Your task to perform on an android device: turn off airplane mode Image 0: 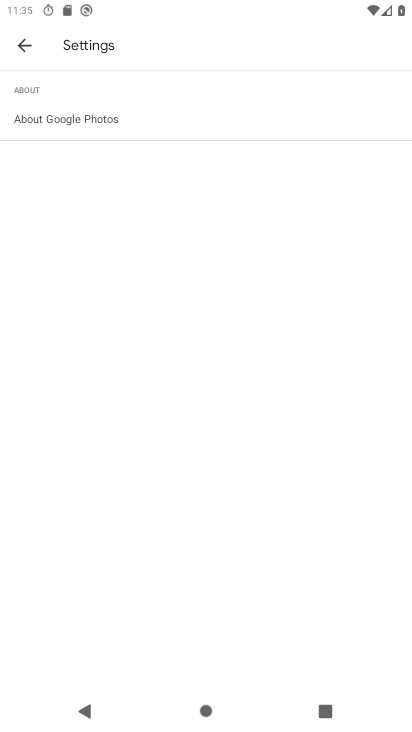
Step 0: press home button
Your task to perform on an android device: turn off airplane mode Image 1: 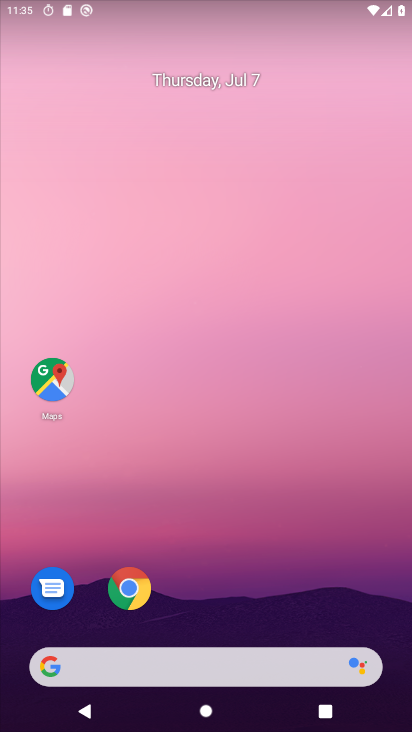
Step 1: drag from (219, 651) to (346, 60)
Your task to perform on an android device: turn off airplane mode Image 2: 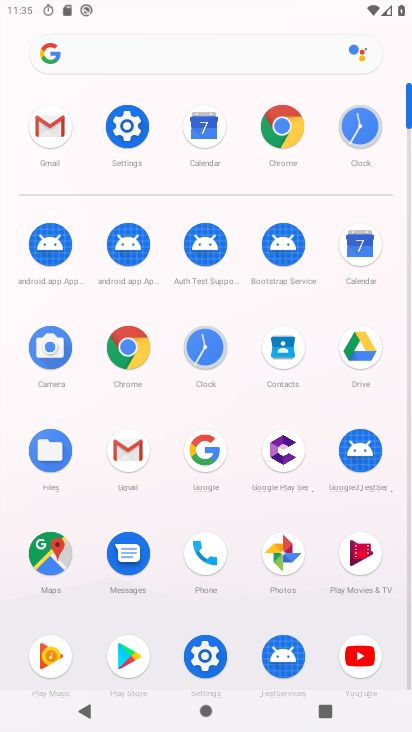
Step 2: click (130, 137)
Your task to perform on an android device: turn off airplane mode Image 3: 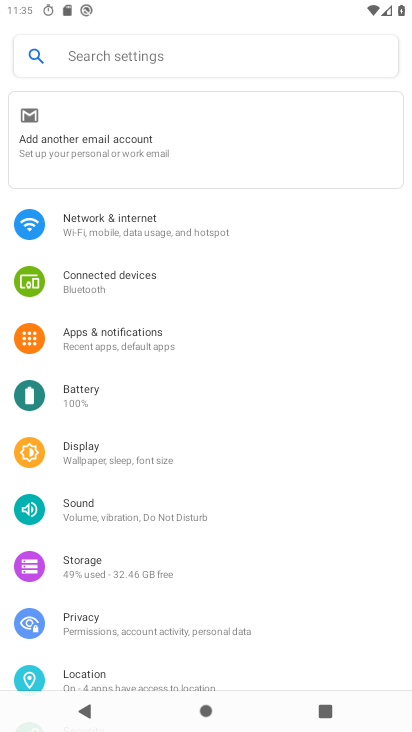
Step 3: click (157, 233)
Your task to perform on an android device: turn off airplane mode Image 4: 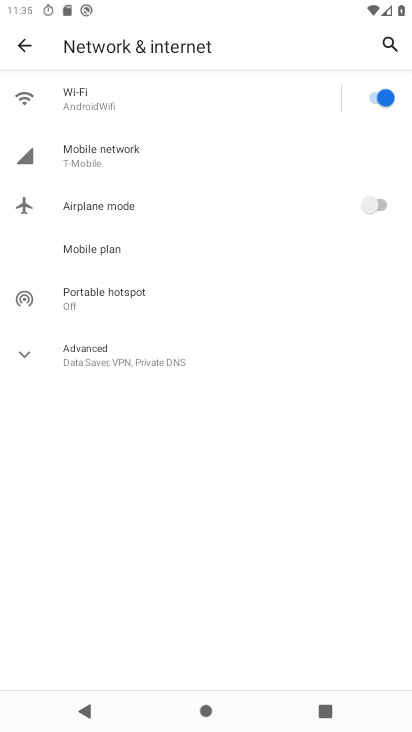
Step 4: task complete